Your task to perform on an android device: Show the shopping cart on target. Search for panasonic triple a on target, select the first entry, add it to the cart, then select checkout. Image 0: 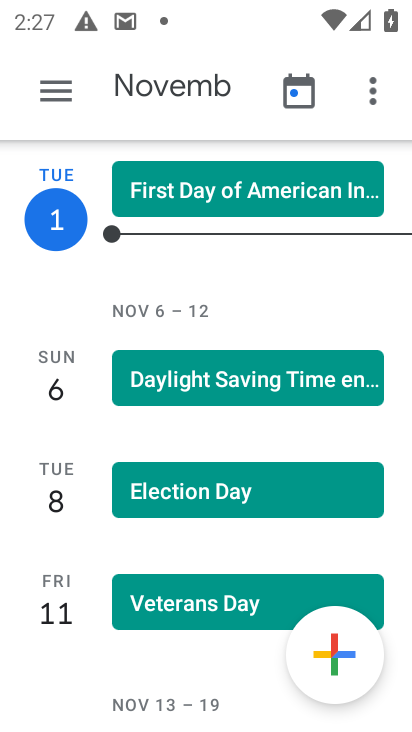
Step 0: press home button
Your task to perform on an android device: Show the shopping cart on target. Search for panasonic triple a on target, select the first entry, add it to the cart, then select checkout. Image 1: 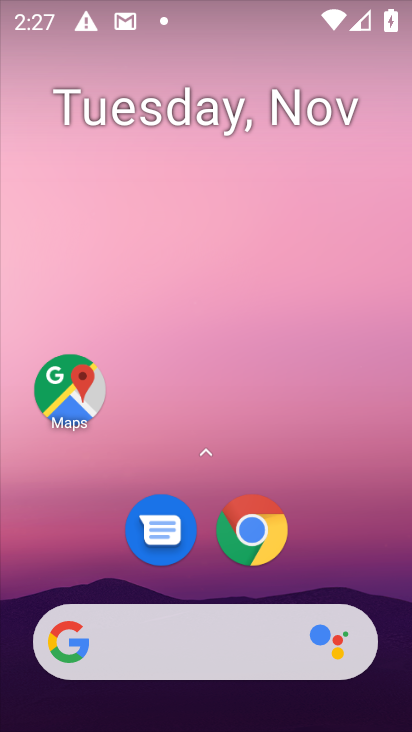
Step 1: click (246, 532)
Your task to perform on an android device: Show the shopping cart on target. Search for panasonic triple a on target, select the first entry, add it to the cart, then select checkout. Image 2: 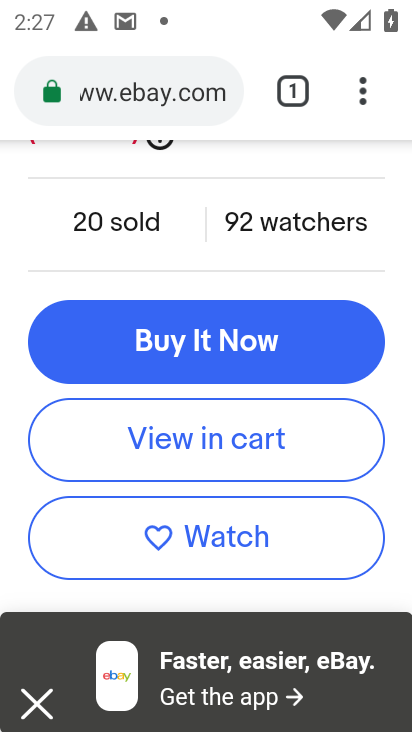
Step 2: drag from (179, 86) to (179, 524)
Your task to perform on an android device: Show the shopping cart on target. Search for panasonic triple a on target, select the first entry, add it to the cart, then select checkout. Image 3: 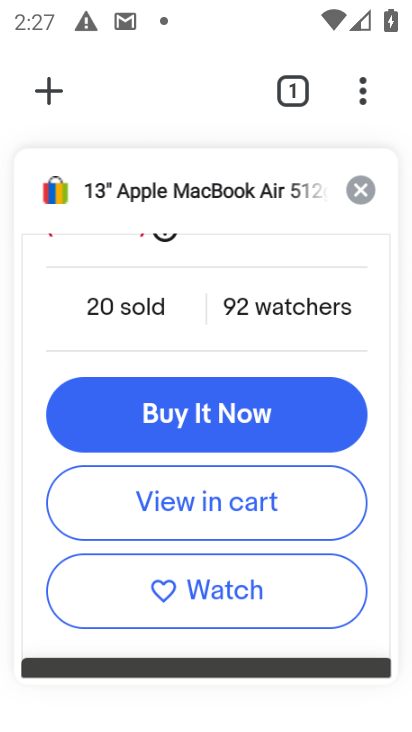
Step 3: click (219, 175)
Your task to perform on an android device: Show the shopping cart on target. Search for panasonic triple a on target, select the first entry, add it to the cart, then select checkout. Image 4: 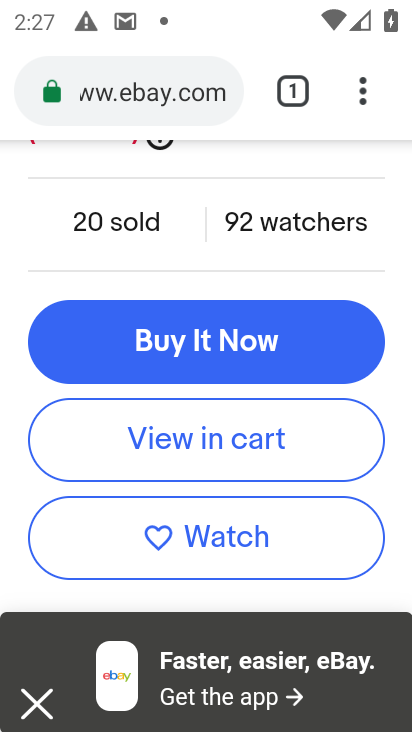
Step 4: click (160, 79)
Your task to perform on an android device: Show the shopping cart on target. Search for panasonic triple a on target, select the first entry, add it to the cart, then select checkout. Image 5: 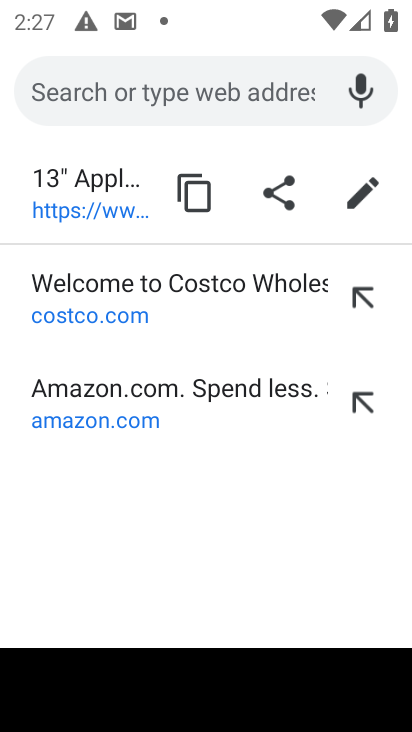
Step 5: type "target"
Your task to perform on an android device: Show the shopping cart on target. Search for panasonic triple a on target, select the first entry, add it to the cart, then select checkout. Image 6: 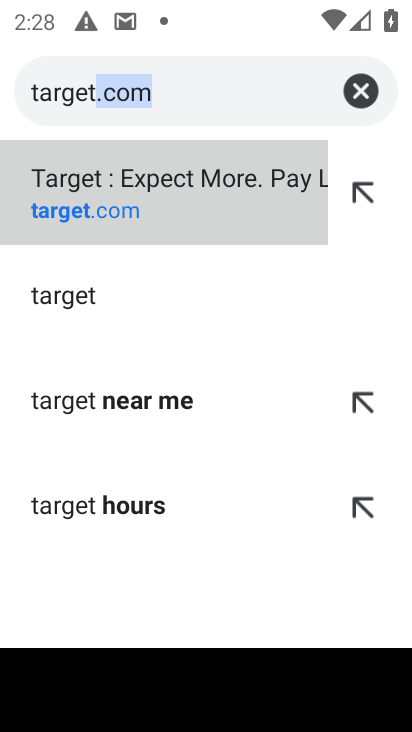
Step 6: click (122, 204)
Your task to perform on an android device: Show the shopping cart on target. Search for panasonic triple a on target, select the first entry, add it to the cart, then select checkout. Image 7: 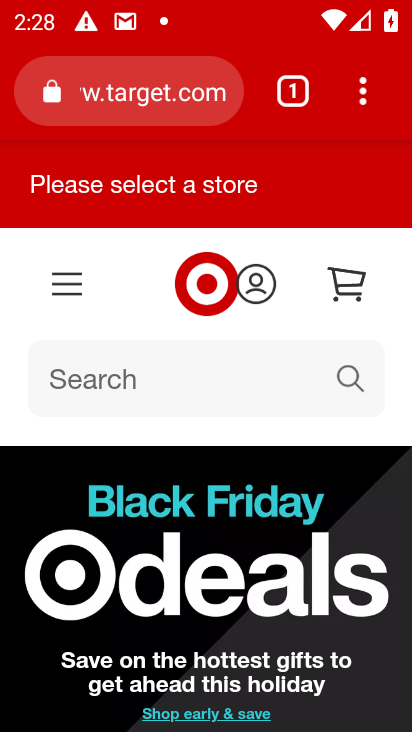
Step 7: click (258, 371)
Your task to perform on an android device: Show the shopping cart on target. Search for panasonic triple a on target, select the first entry, add it to the cart, then select checkout. Image 8: 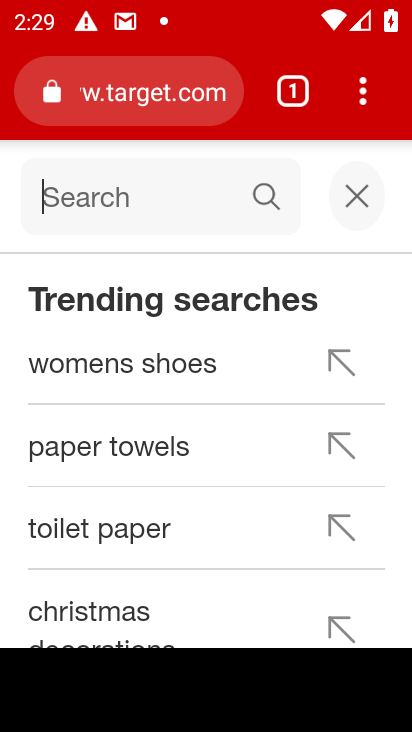
Step 8: type " panasonic triple"
Your task to perform on an android device: Show the shopping cart on target. Search for panasonic triple a on target, select the first entry, add it to the cart, then select checkout. Image 9: 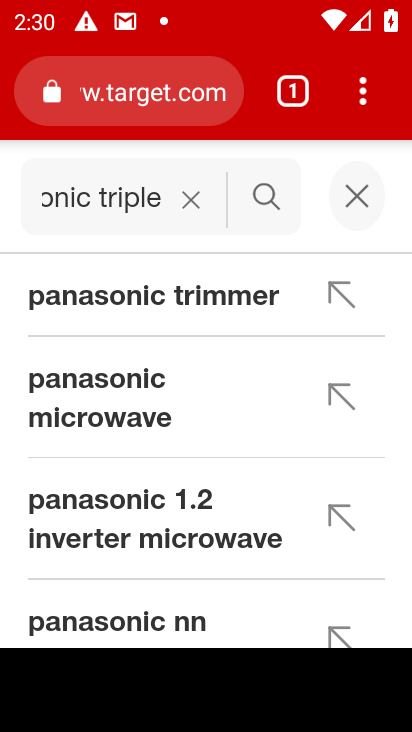
Step 9: click (199, 295)
Your task to perform on an android device: Show the shopping cart on target. Search for panasonic triple a on target, select the first entry, add it to the cart, then select checkout. Image 10: 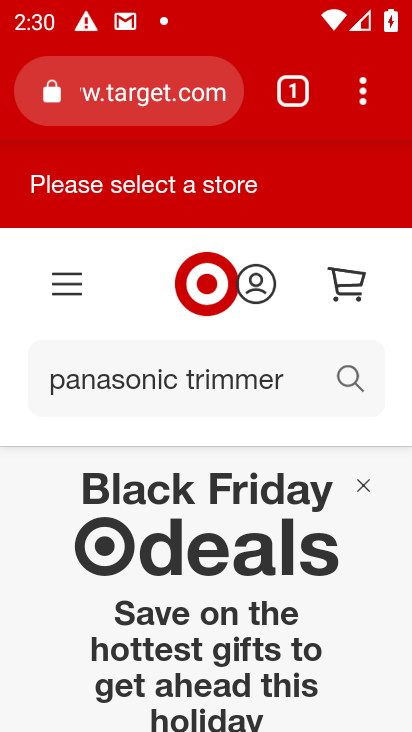
Step 10: drag from (170, 481) to (164, 59)
Your task to perform on an android device: Show the shopping cart on target. Search for panasonic triple a on target, select the first entry, add it to the cart, then select checkout. Image 11: 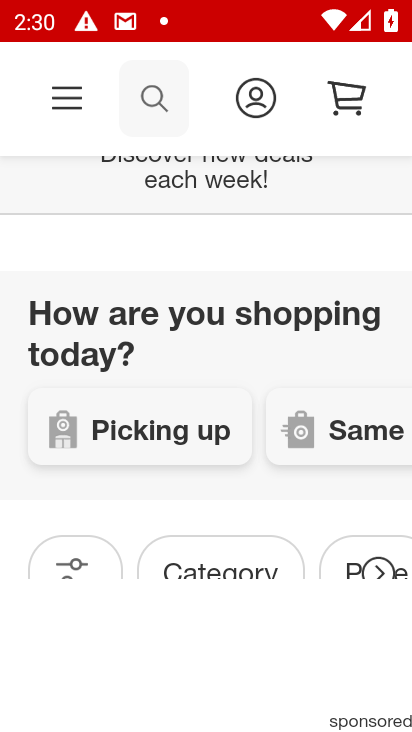
Step 11: drag from (146, 572) to (192, 224)
Your task to perform on an android device: Show the shopping cart on target. Search for panasonic triple a on target, select the first entry, add it to the cart, then select checkout. Image 12: 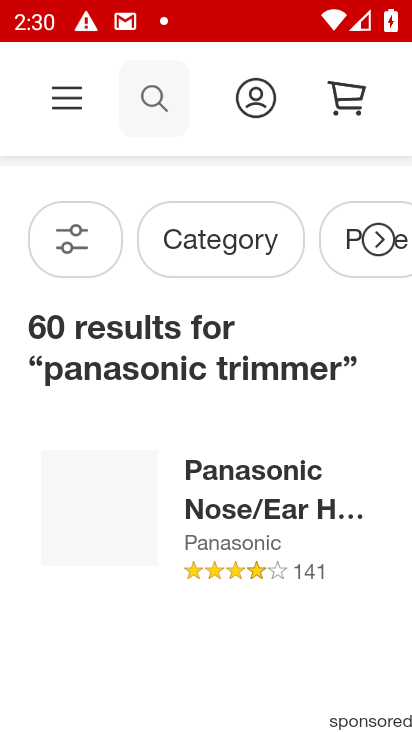
Step 12: drag from (201, 455) to (270, 169)
Your task to perform on an android device: Show the shopping cart on target. Search for panasonic triple a on target, select the first entry, add it to the cart, then select checkout. Image 13: 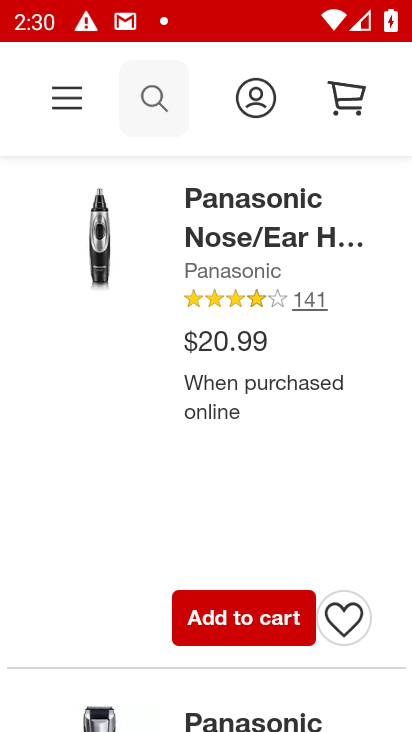
Step 13: click (238, 627)
Your task to perform on an android device: Show the shopping cart on target. Search for panasonic triple a on target, select the first entry, add it to the cart, then select checkout. Image 14: 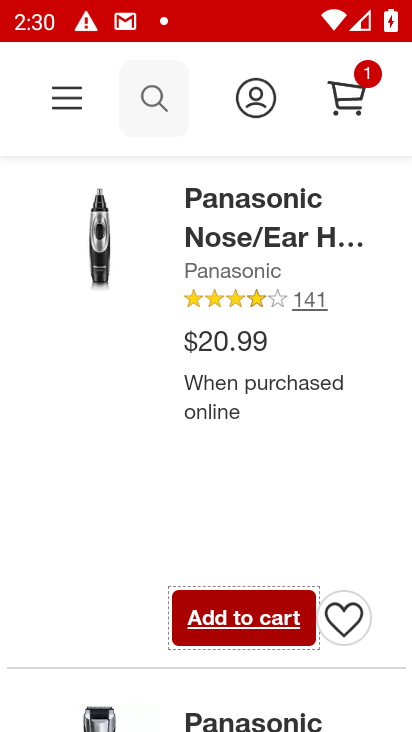
Step 14: task complete